Your task to perform on an android device: toggle airplane mode Image 0: 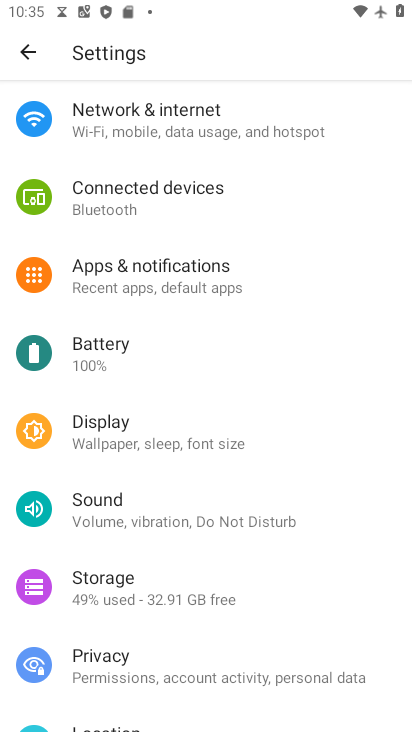
Step 0: press back button
Your task to perform on an android device: toggle airplane mode Image 1: 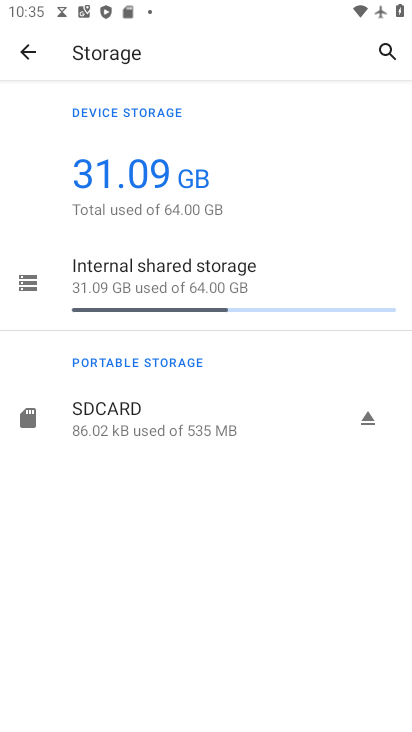
Step 1: press home button
Your task to perform on an android device: toggle airplane mode Image 2: 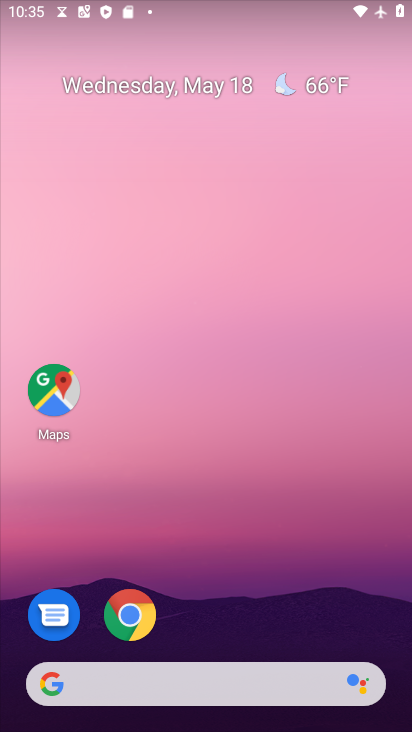
Step 2: drag from (240, 591) to (240, 32)
Your task to perform on an android device: toggle airplane mode Image 3: 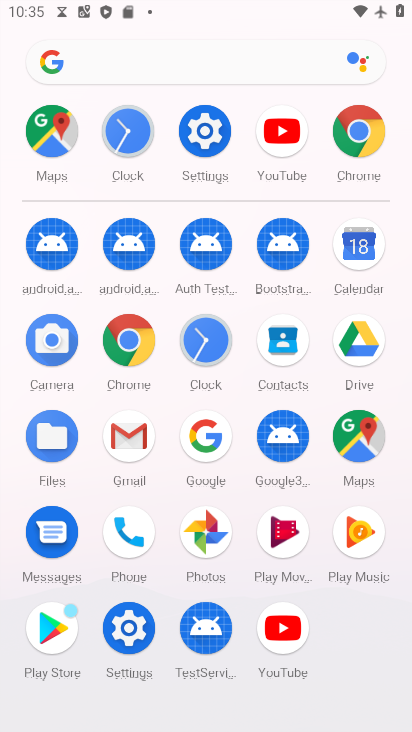
Step 3: click (202, 126)
Your task to perform on an android device: toggle airplane mode Image 4: 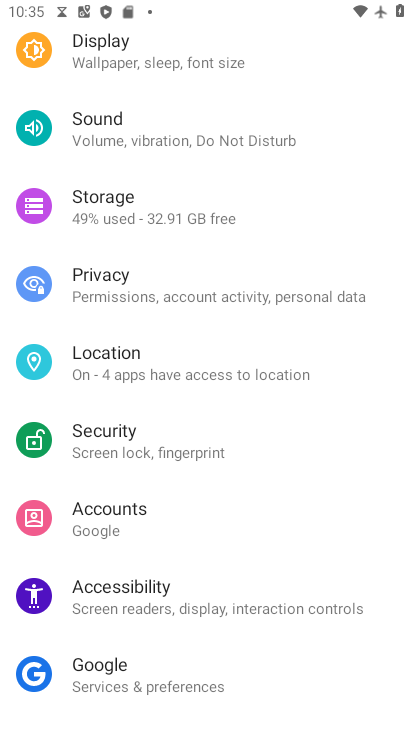
Step 4: drag from (239, 97) to (263, 536)
Your task to perform on an android device: toggle airplane mode Image 5: 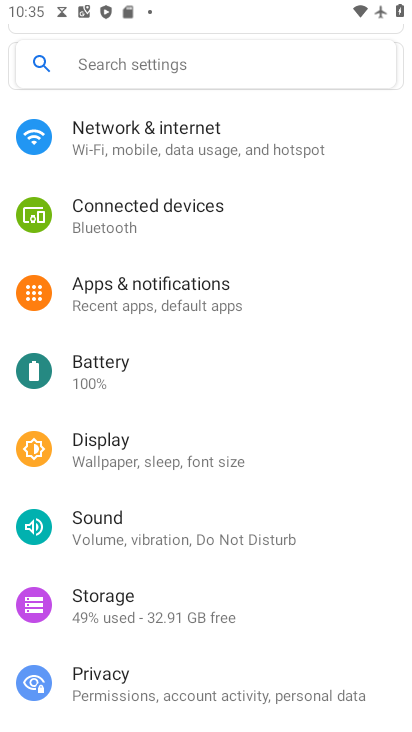
Step 5: drag from (260, 227) to (236, 568)
Your task to perform on an android device: toggle airplane mode Image 6: 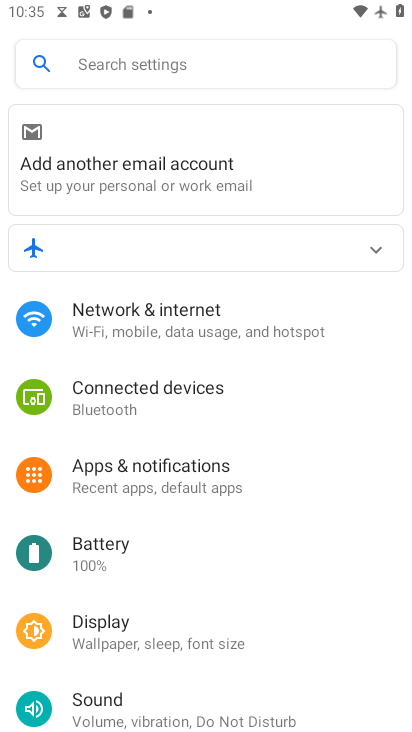
Step 6: click (172, 326)
Your task to perform on an android device: toggle airplane mode Image 7: 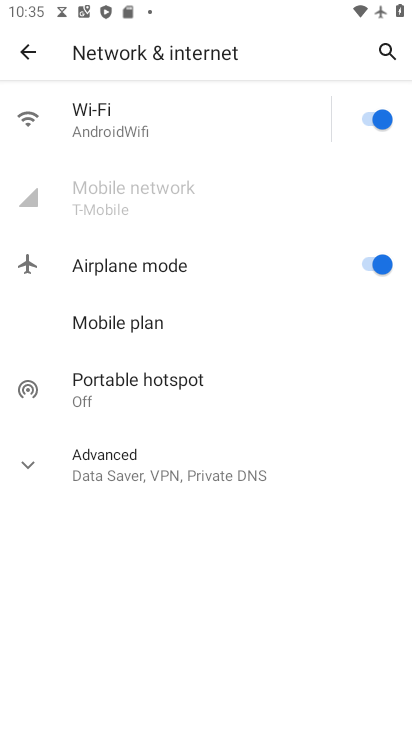
Step 7: click (38, 466)
Your task to perform on an android device: toggle airplane mode Image 8: 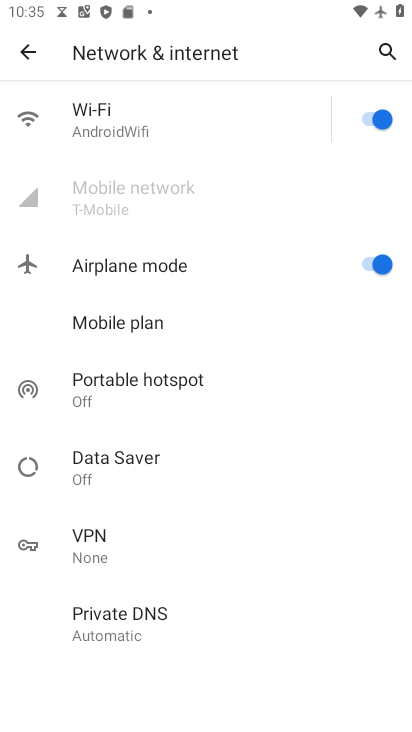
Step 8: task complete